Your task to perform on an android device: Go to Yahoo.com Image 0: 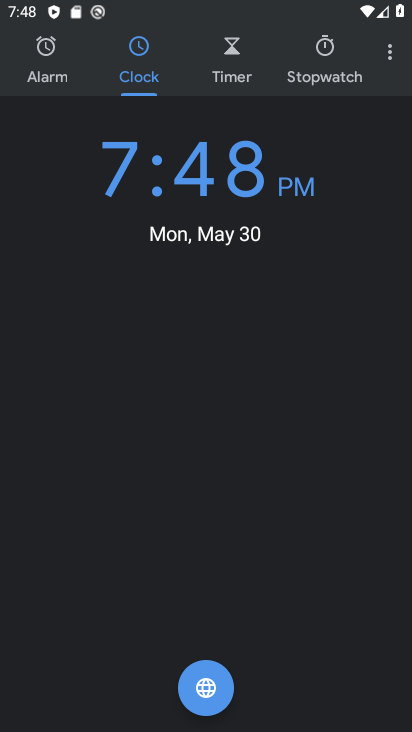
Step 0: press home button
Your task to perform on an android device: Go to Yahoo.com Image 1: 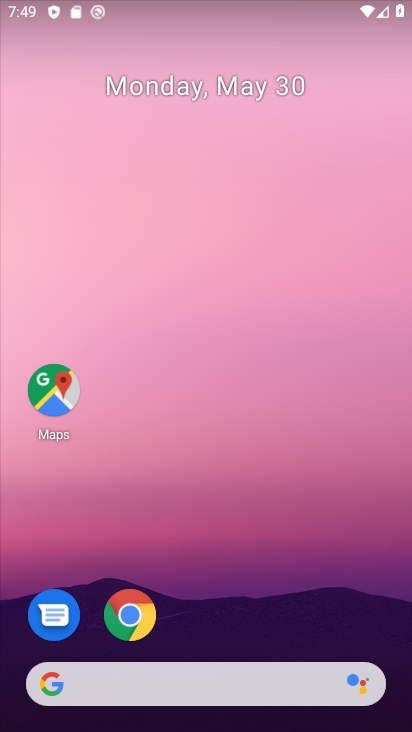
Step 1: click (138, 633)
Your task to perform on an android device: Go to Yahoo.com Image 2: 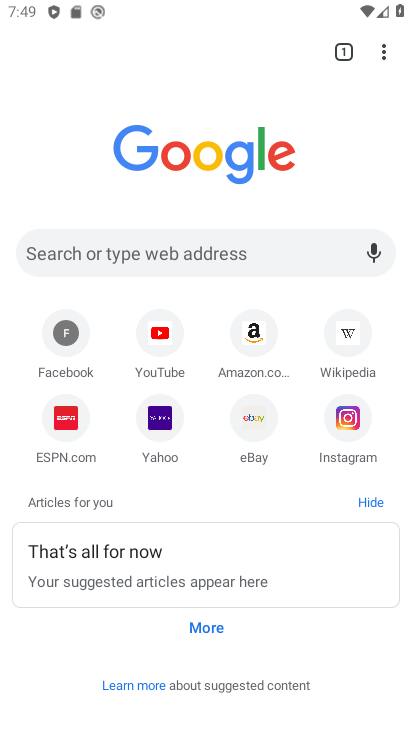
Step 2: click (150, 441)
Your task to perform on an android device: Go to Yahoo.com Image 3: 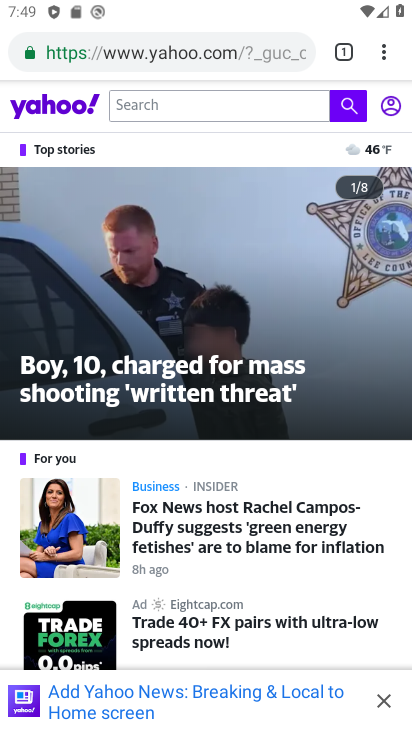
Step 3: click (389, 708)
Your task to perform on an android device: Go to Yahoo.com Image 4: 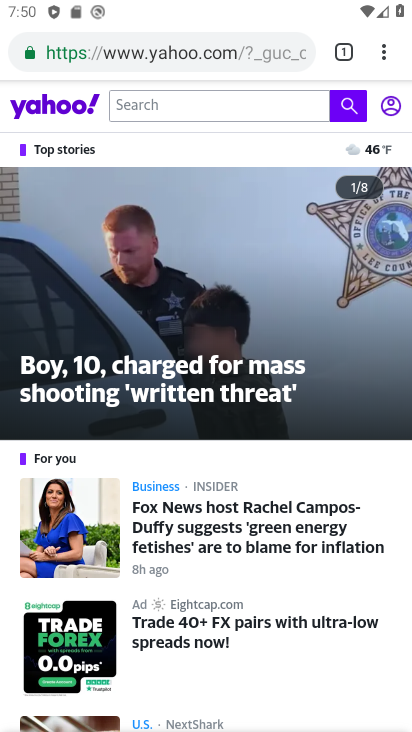
Step 4: task complete